Your task to perform on an android device: turn vacation reply on in the gmail app Image 0: 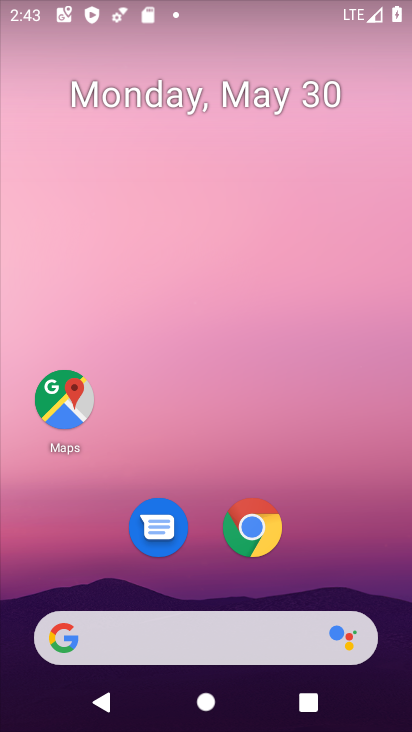
Step 0: drag from (336, 494) to (328, 105)
Your task to perform on an android device: turn vacation reply on in the gmail app Image 1: 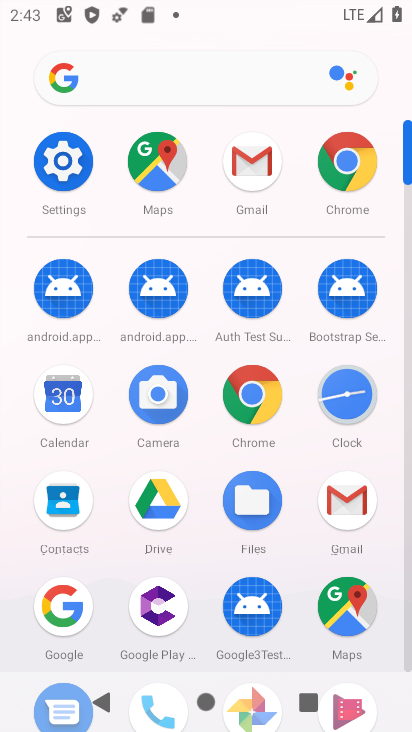
Step 1: click (256, 160)
Your task to perform on an android device: turn vacation reply on in the gmail app Image 2: 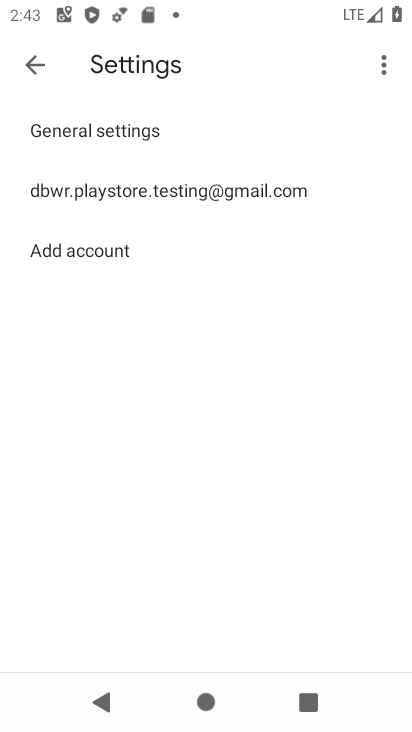
Step 2: click (210, 187)
Your task to perform on an android device: turn vacation reply on in the gmail app Image 3: 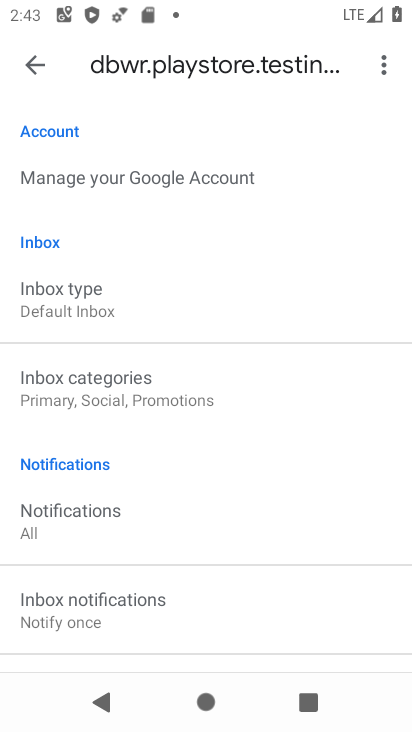
Step 3: drag from (317, 623) to (361, 171)
Your task to perform on an android device: turn vacation reply on in the gmail app Image 4: 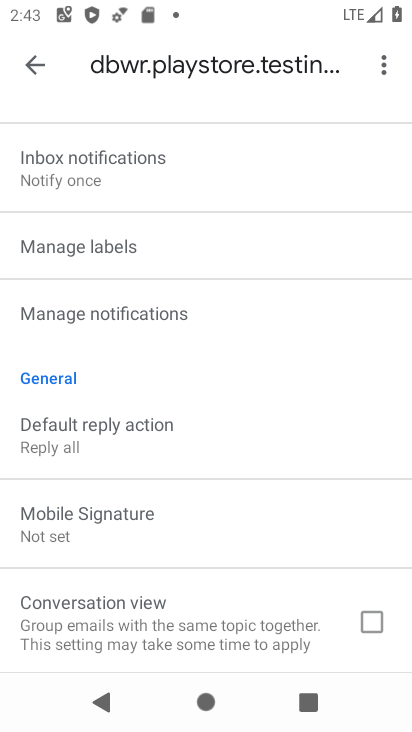
Step 4: drag from (210, 575) to (258, 238)
Your task to perform on an android device: turn vacation reply on in the gmail app Image 5: 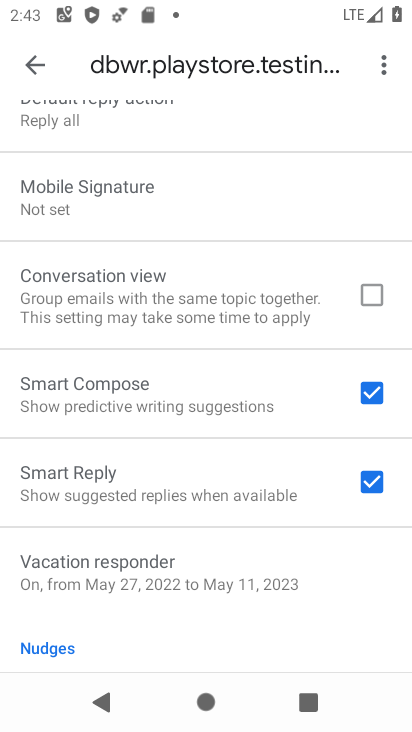
Step 5: click (137, 559)
Your task to perform on an android device: turn vacation reply on in the gmail app Image 6: 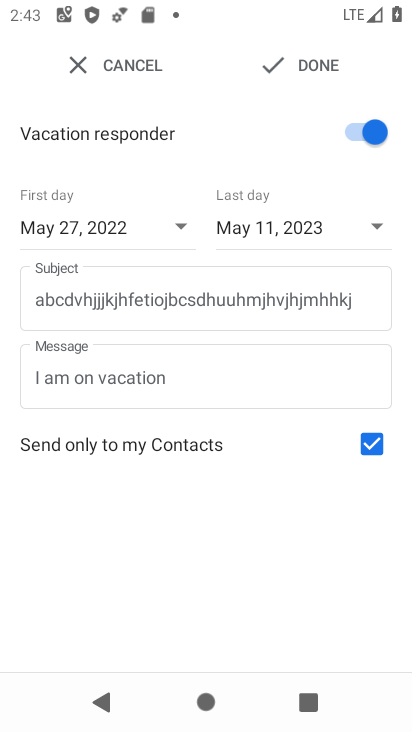
Step 6: click (312, 68)
Your task to perform on an android device: turn vacation reply on in the gmail app Image 7: 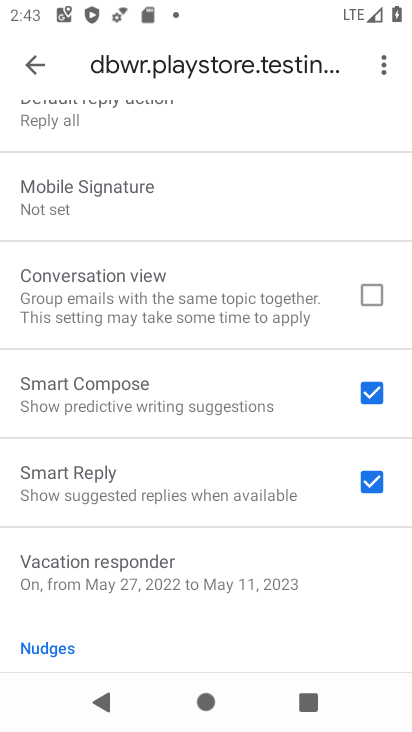
Step 7: task complete